Your task to perform on an android device: turn off sleep mode Image 0: 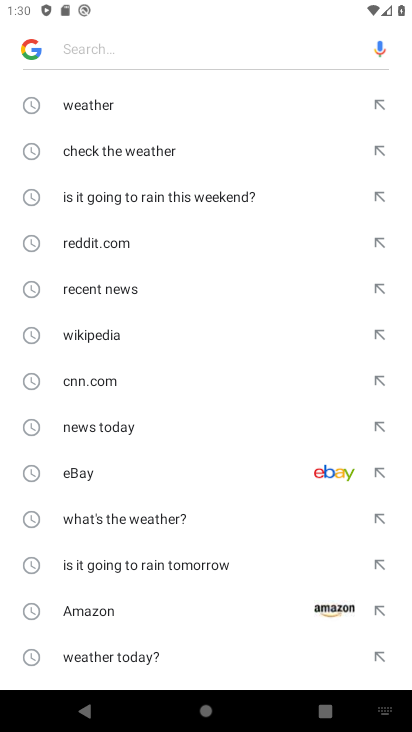
Step 0: press back button
Your task to perform on an android device: turn off sleep mode Image 1: 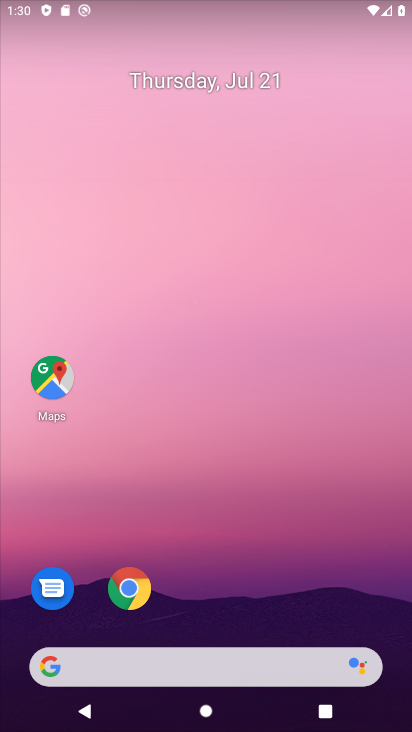
Step 1: drag from (210, 631) to (210, 56)
Your task to perform on an android device: turn off sleep mode Image 2: 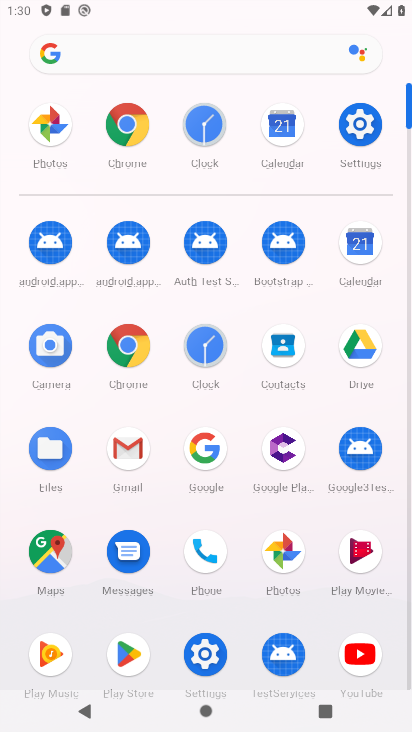
Step 2: click (375, 127)
Your task to perform on an android device: turn off sleep mode Image 3: 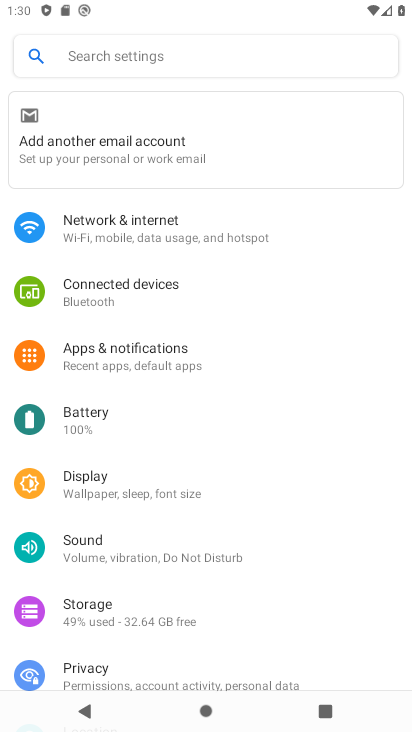
Step 3: click (87, 489)
Your task to perform on an android device: turn off sleep mode Image 4: 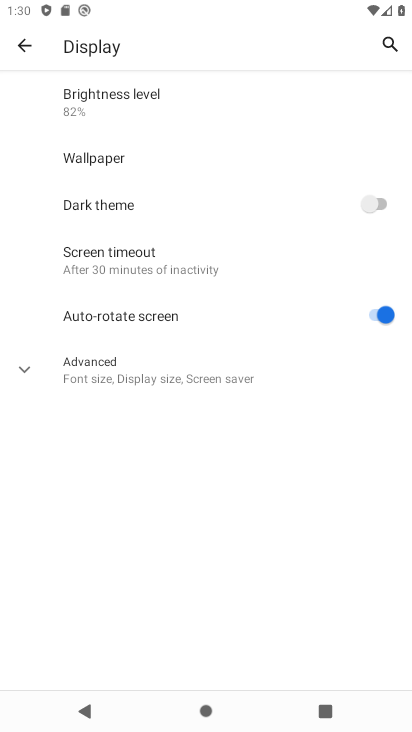
Step 4: task complete